Your task to perform on an android device: Go to wifi settings Image 0: 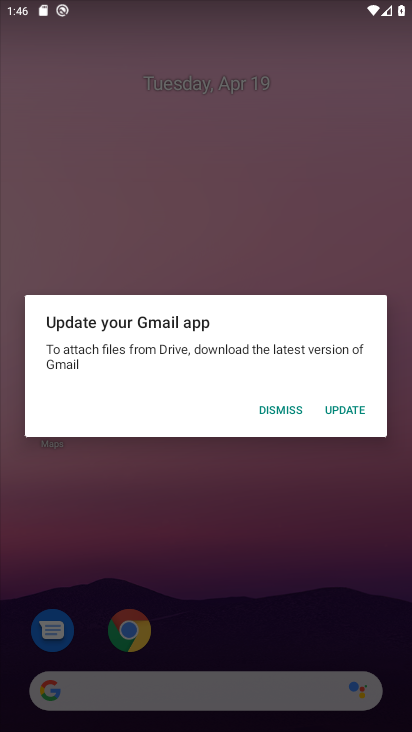
Step 0: press home button
Your task to perform on an android device: Go to wifi settings Image 1: 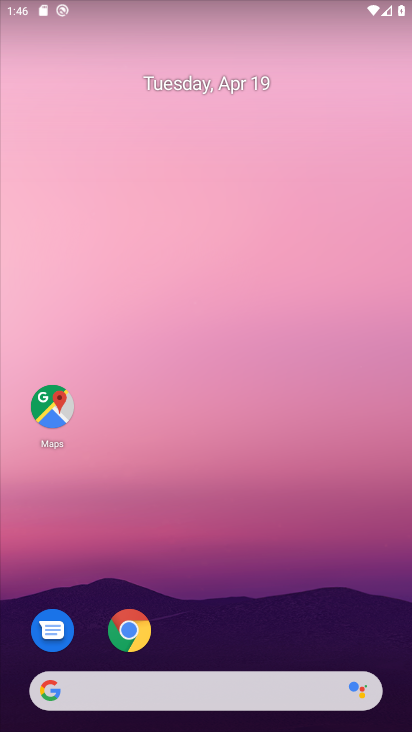
Step 1: drag from (223, 623) to (157, 1)
Your task to perform on an android device: Go to wifi settings Image 2: 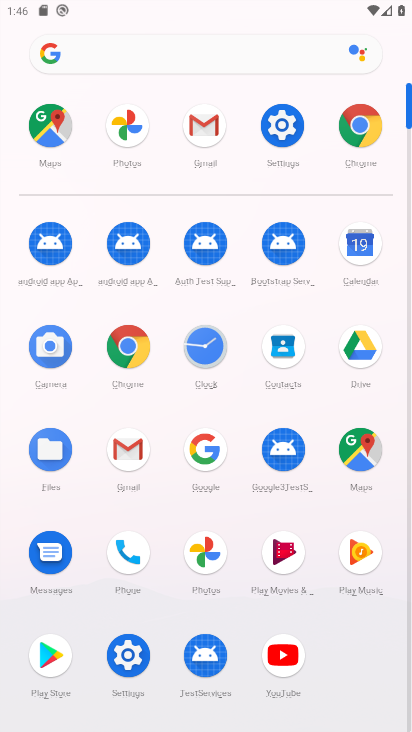
Step 2: click (265, 130)
Your task to perform on an android device: Go to wifi settings Image 3: 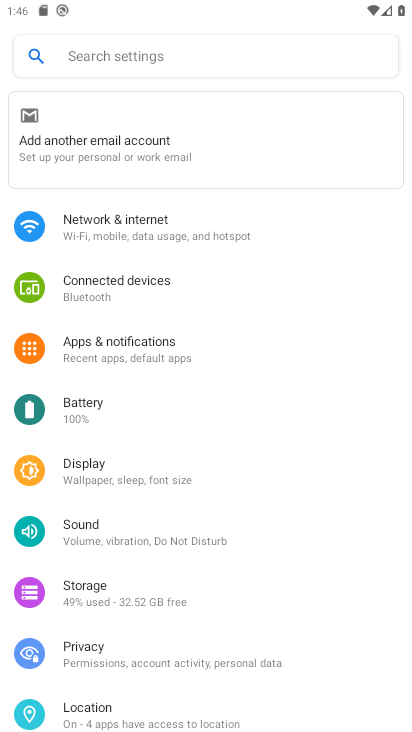
Step 3: click (189, 229)
Your task to perform on an android device: Go to wifi settings Image 4: 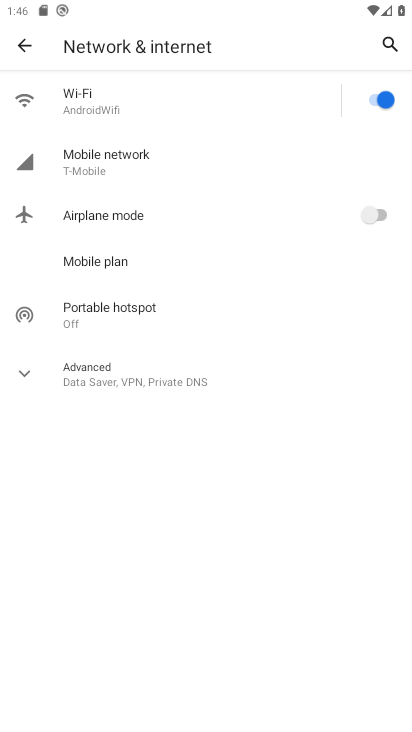
Step 4: click (179, 104)
Your task to perform on an android device: Go to wifi settings Image 5: 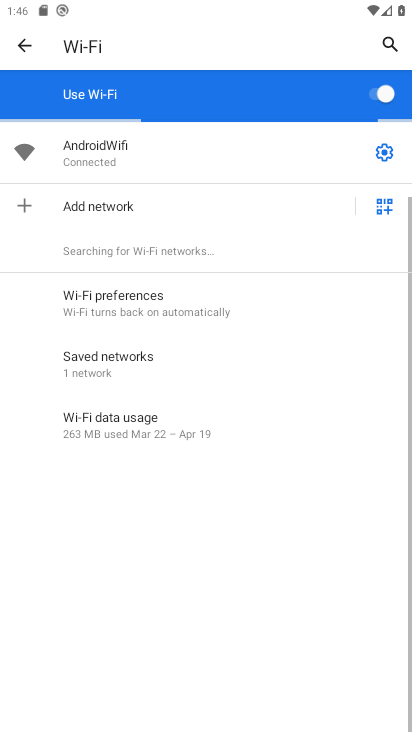
Step 5: click (390, 151)
Your task to perform on an android device: Go to wifi settings Image 6: 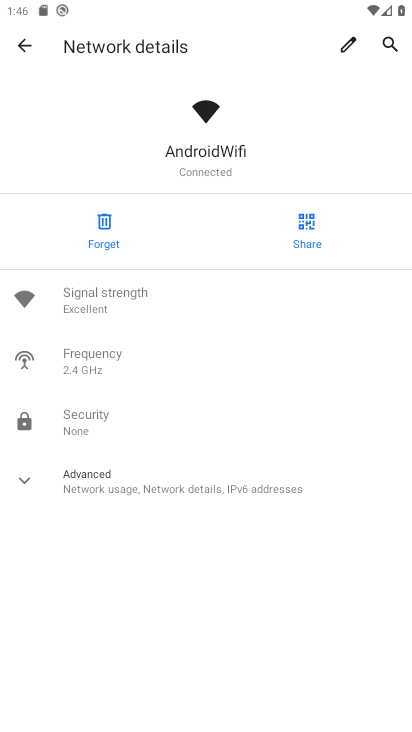
Step 6: task complete